Your task to perform on an android device: delete browsing data in the chrome app Image 0: 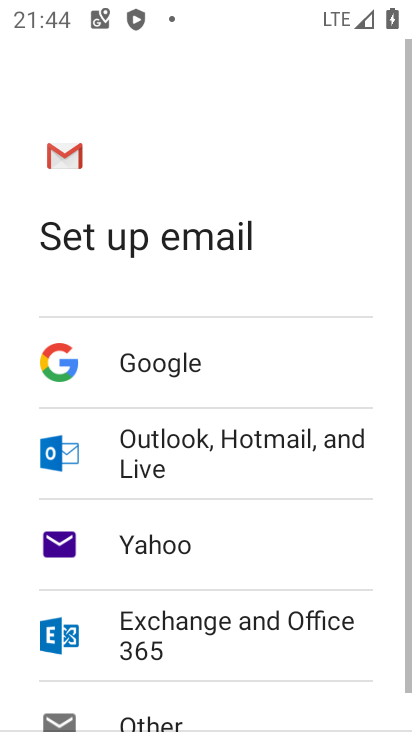
Step 0: press back button
Your task to perform on an android device: delete browsing data in the chrome app Image 1: 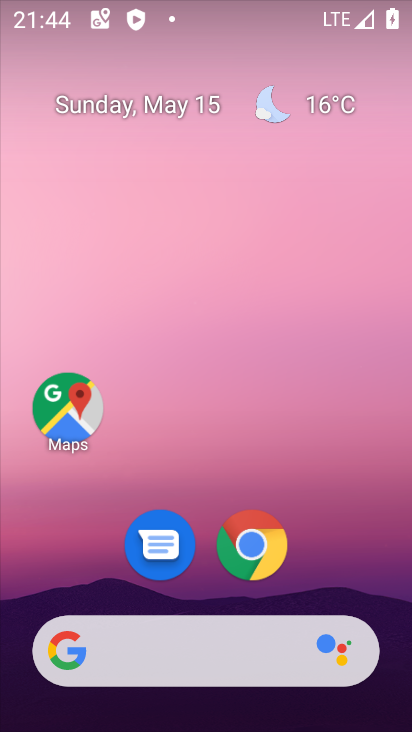
Step 1: click (254, 542)
Your task to perform on an android device: delete browsing data in the chrome app Image 2: 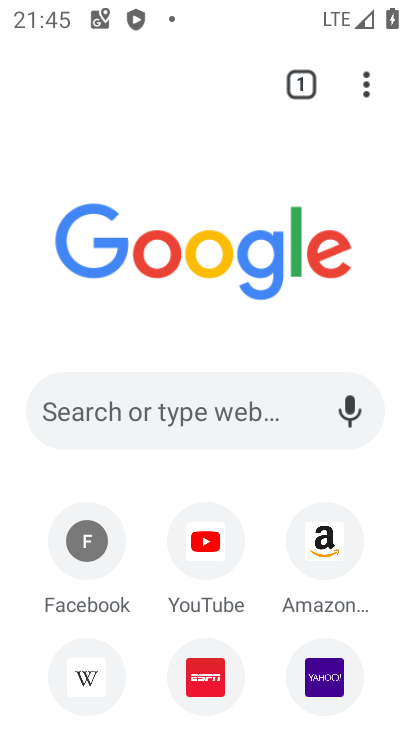
Step 2: click (367, 83)
Your task to perform on an android device: delete browsing data in the chrome app Image 3: 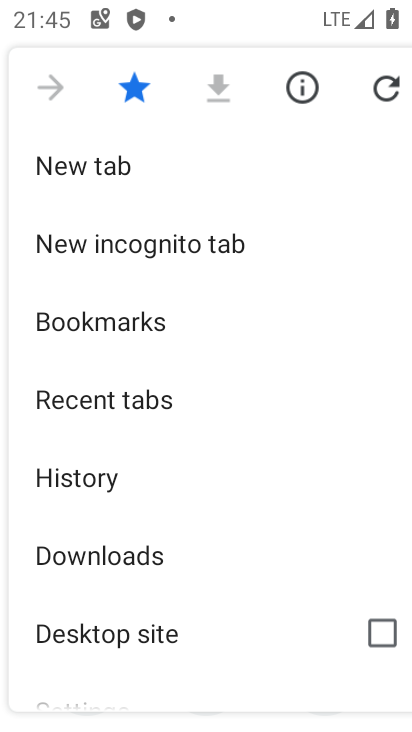
Step 3: drag from (169, 465) to (229, 366)
Your task to perform on an android device: delete browsing data in the chrome app Image 4: 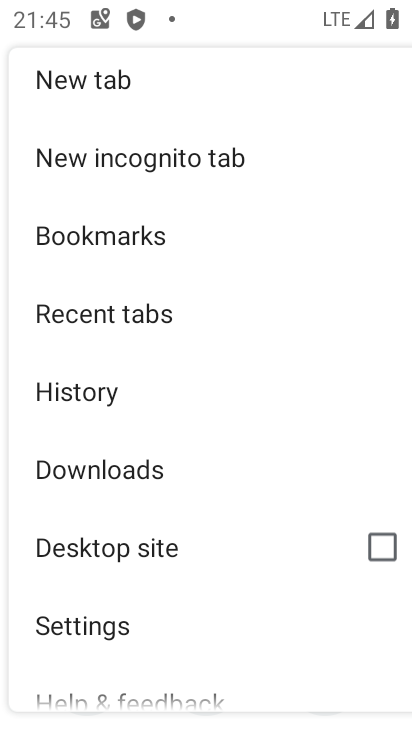
Step 4: drag from (146, 504) to (242, 385)
Your task to perform on an android device: delete browsing data in the chrome app Image 5: 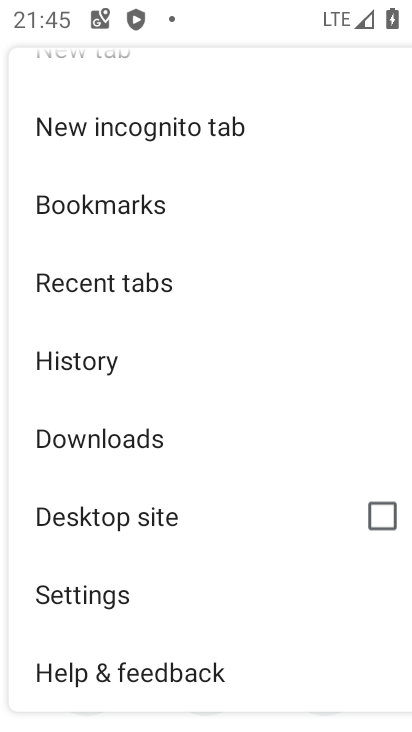
Step 5: click (101, 595)
Your task to perform on an android device: delete browsing data in the chrome app Image 6: 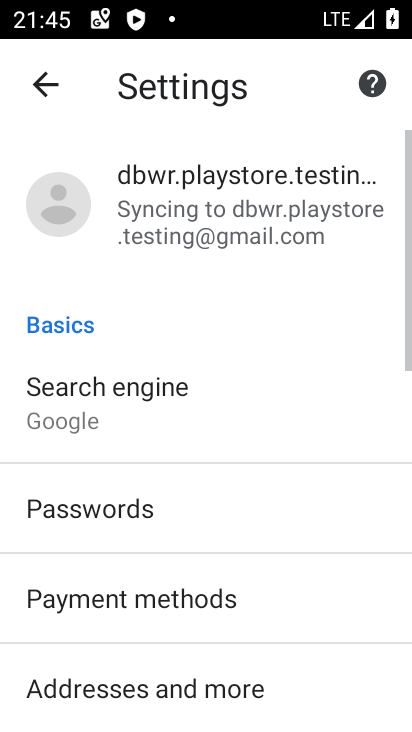
Step 6: drag from (153, 548) to (206, 432)
Your task to perform on an android device: delete browsing data in the chrome app Image 7: 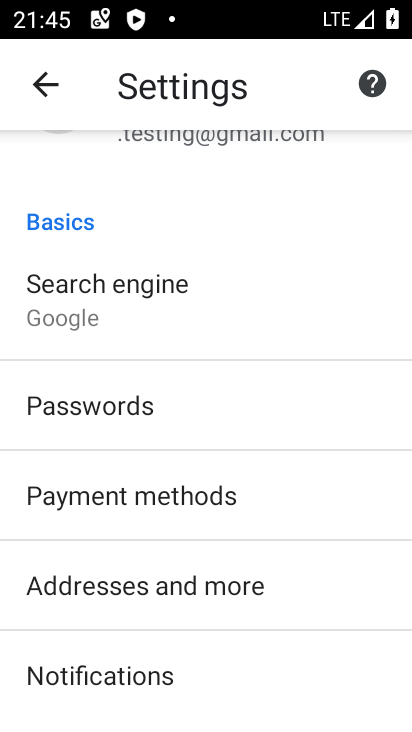
Step 7: drag from (120, 606) to (206, 471)
Your task to perform on an android device: delete browsing data in the chrome app Image 8: 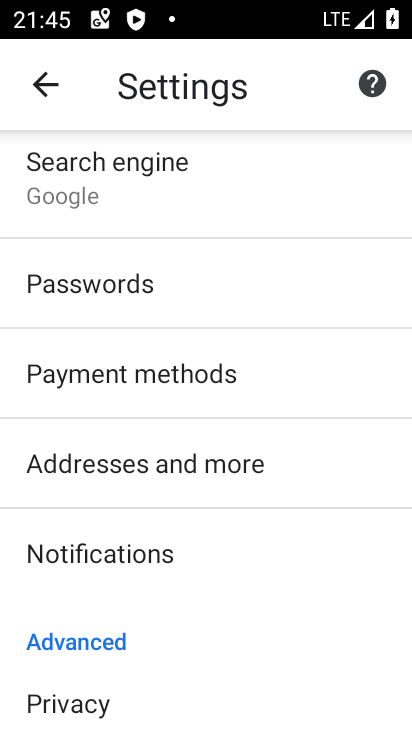
Step 8: drag from (130, 598) to (242, 460)
Your task to perform on an android device: delete browsing data in the chrome app Image 9: 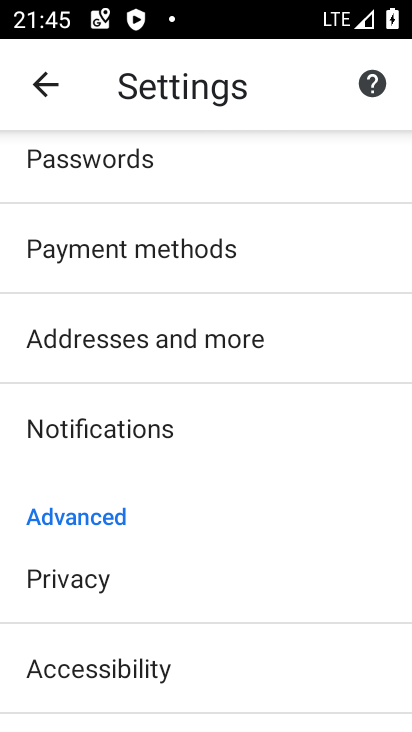
Step 9: click (89, 579)
Your task to perform on an android device: delete browsing data in the chrome app Image 10: 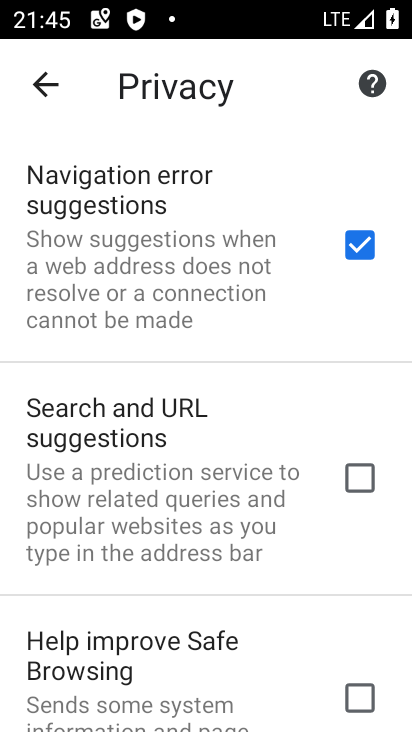
Step 10: drag from (97, 631) to (155, 407)
Your task to perform on an android device: delete browsing data in the chrome app Image 11: 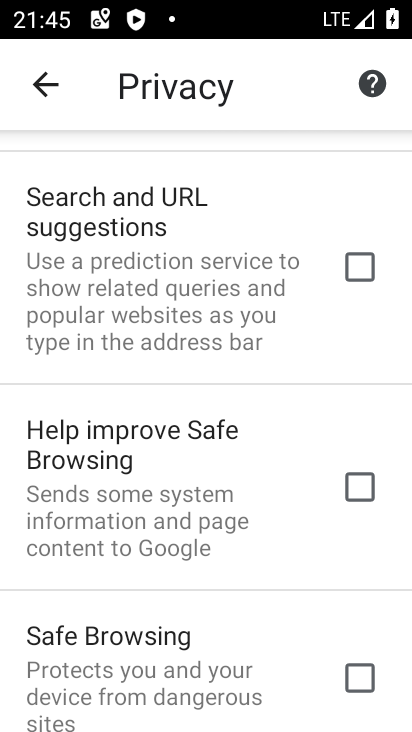
Step 11: drag from (131, 623) to (169, 499)
Your task to perform on an android device: delete browsing data in the chrome app Image 12: 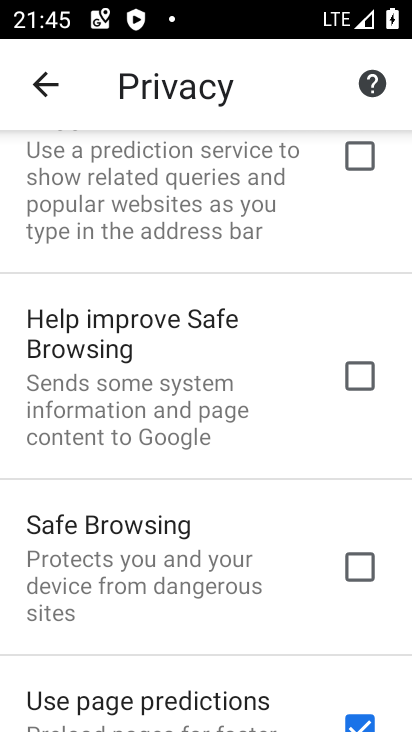
Step 12: drag from (94, 665) to (181, 468)
Your task to perform on an android device: delete browsing data in the chrome app Image 13: 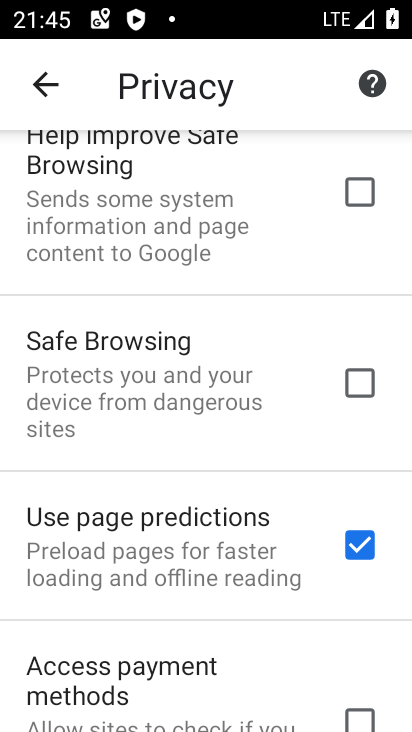
Step 13: drag from (109, 649) to (186, 472)
Your task to perform on an android device: delete browsing data in the chrome app Image 14: 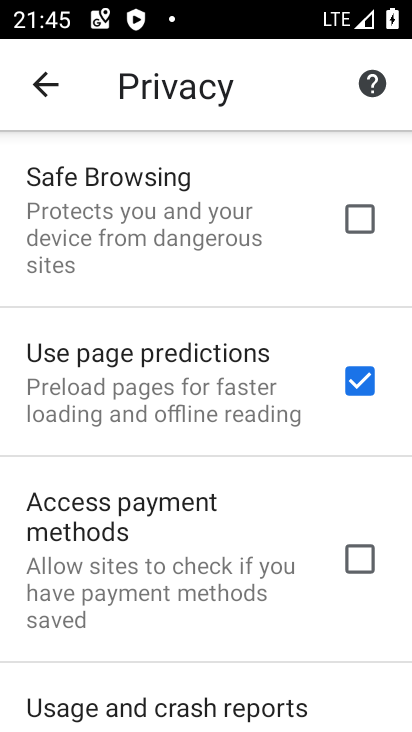
Step 14: drag from (128, 667) to (205, 498)
Your task to perform on an android device: delete browsing data in the chrome app Image 15: 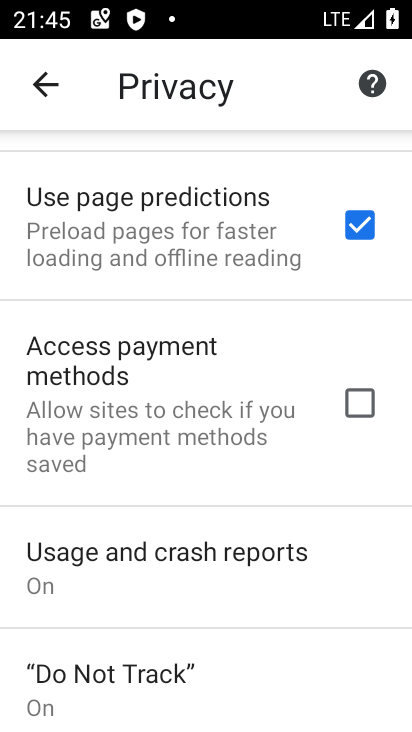
Step 15: drag from (106, 659) to (190, 476)
Your task to perform on an android device: delete browsing data in the chrome app Image 16: 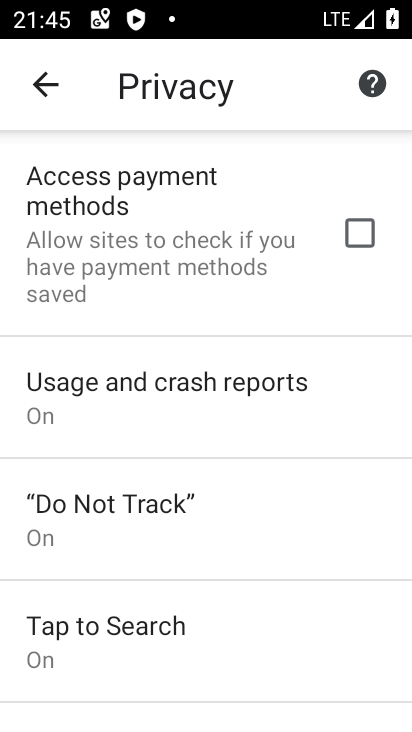
Step 16: drag from (111, 677) to (175, 506)
Your task to perform on an android device: delete browsing data in the chrome app Image 17: 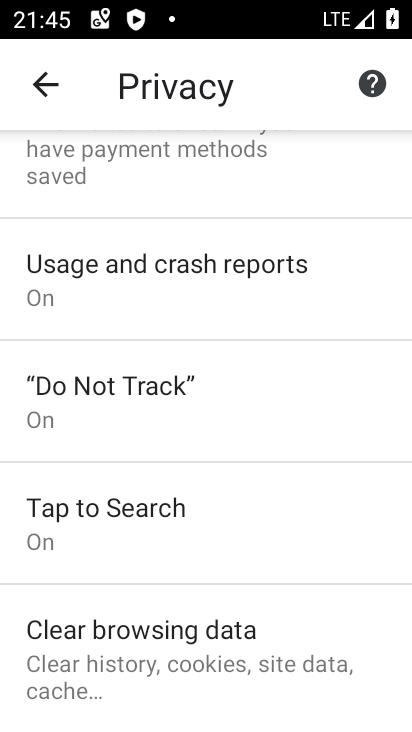
Step 17: click (129, 639)
Your task to perform on an android device: delete browsing data in the chrome app Image 18: 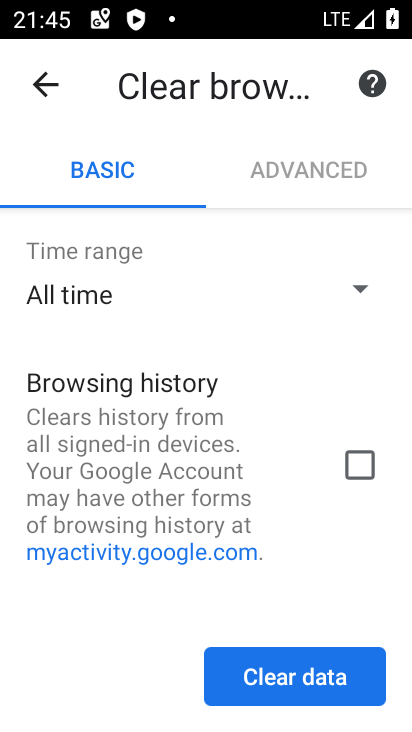
Step 18: click (361, 463)
Your task to perform on an android device: delete browsing data in the chrome app Image 19: 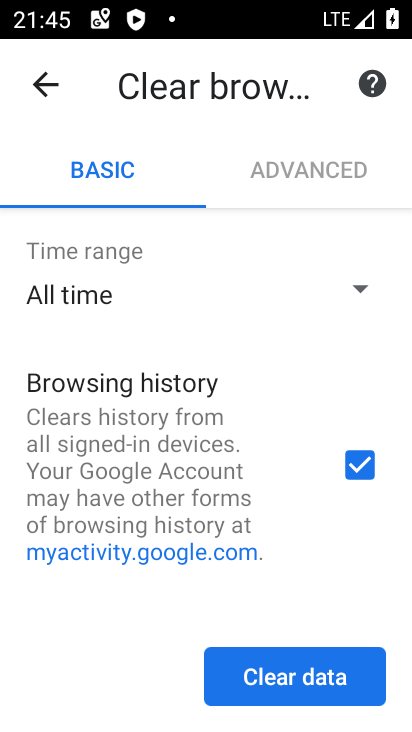
Step 19: click (269, 673)
Your task to perform on an android device: delete browsing data in the chrome app Image 20: 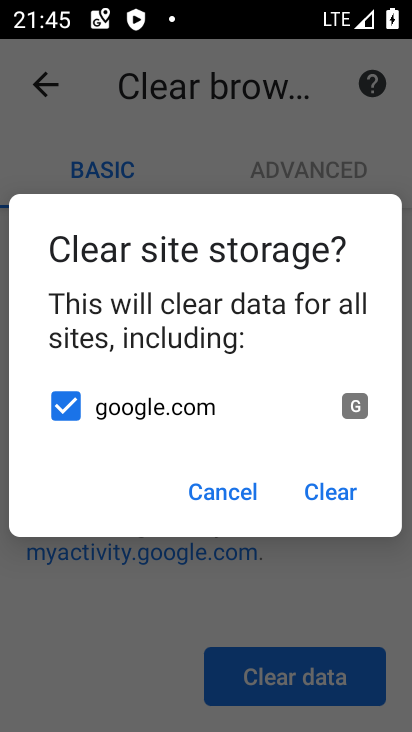
Step 20: click (323, 488)
Your task to perform on an android device: delete browsing data in the chrome app Image 21: 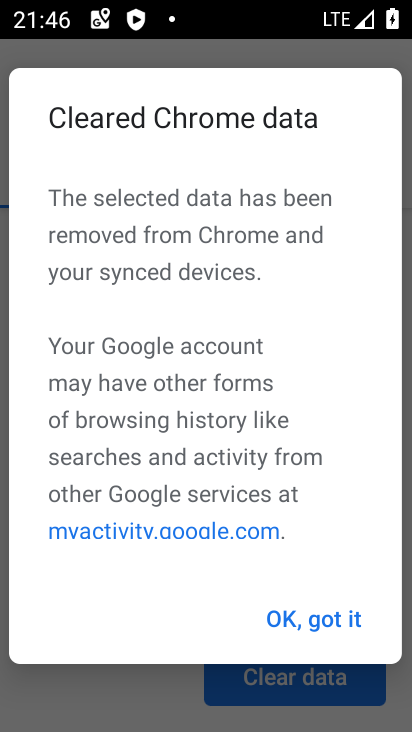
Step 21: click (320, 626)
Your task to perform on an android device: delete browsing data in the chrome app Image 22: 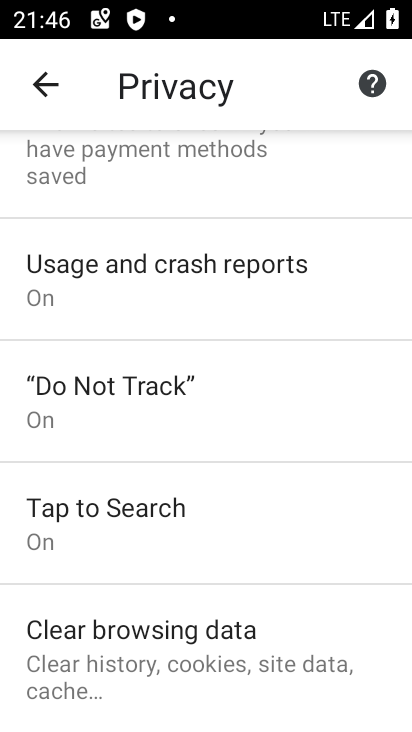
Step 22: task complete